Your task to perform on an android device: turn off translation in the chrome app Image 0: 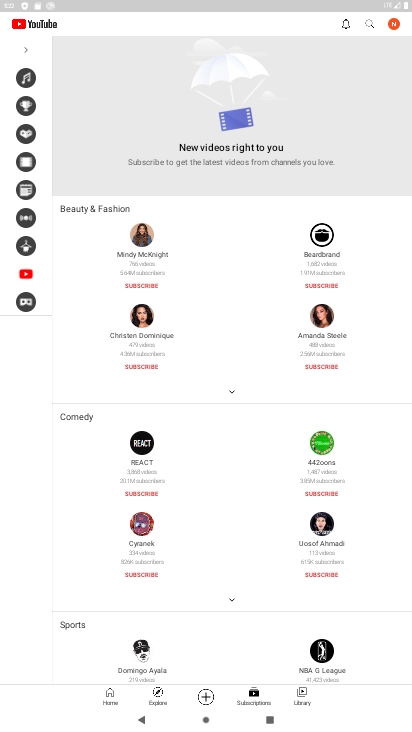
Step 0: press home button
Your task to perform on an android device: turn off translation in the chrome app Image 1: 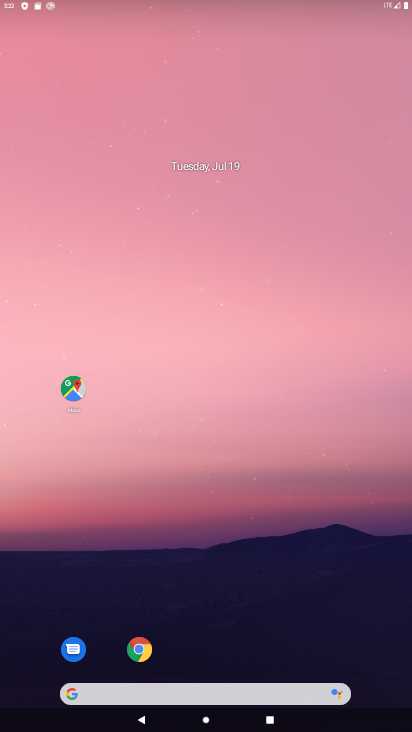
Step 1: drag from (246, 668) to (271, 93)
Your task to perform on an android device: turn off translation in the chrome app Image 2: 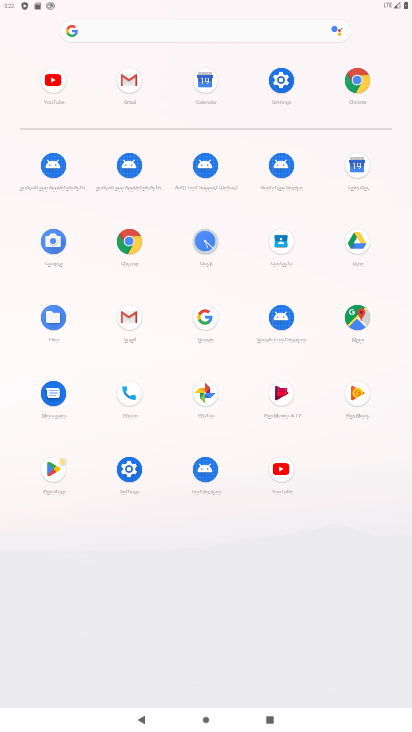
Step 2: click (134, 244)
Your task to perform on an android device: turn off translation in the chrome app Image 3: 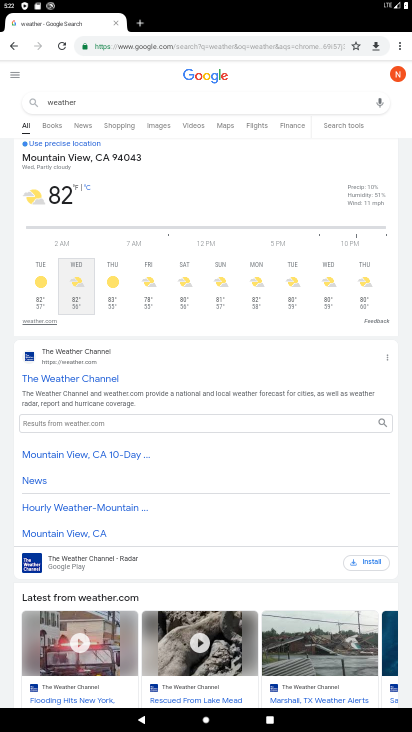
Step 3: drag from (399, 43) to (297, 309)
Your task to perform on an android device: turn off translation in the chrome app Image 4: 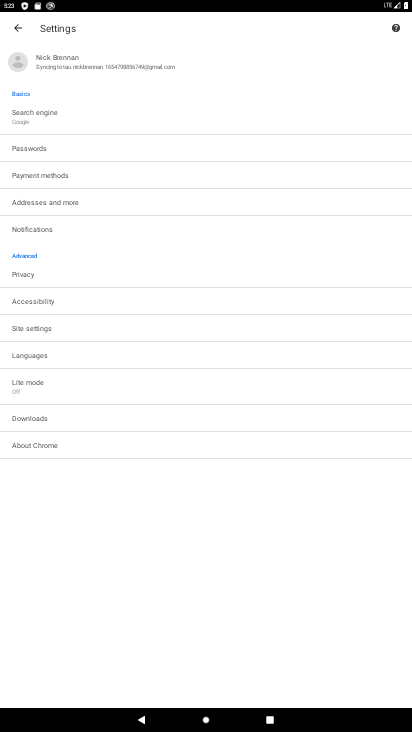
Step 4: click (55, 362)
Your task to perform on an android device: turn off translation in the chrome app Image 5: 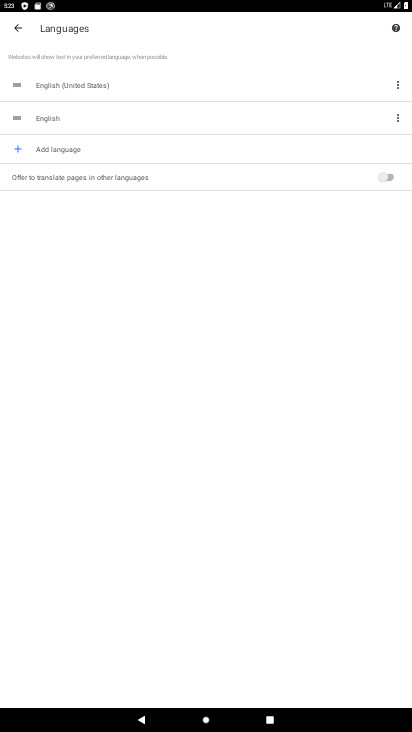
Step 5: task complete